Your task to perform on an android device: create a new album in the google photos Image 0: 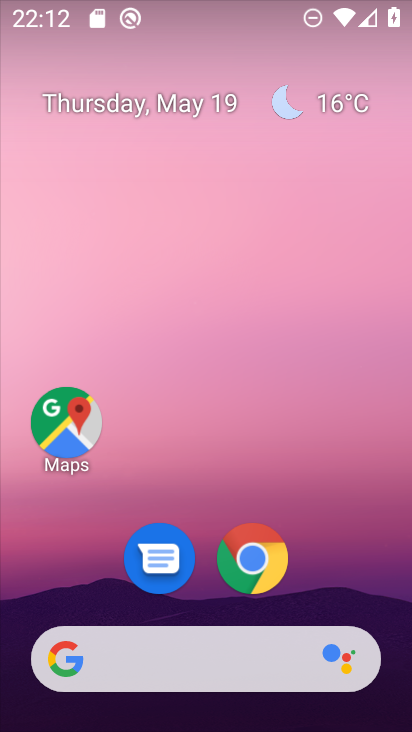
Step 0: drag from (204, 721) to (219, 140)
Your task to perform on an android device: create a new album in the google photos Image 1: 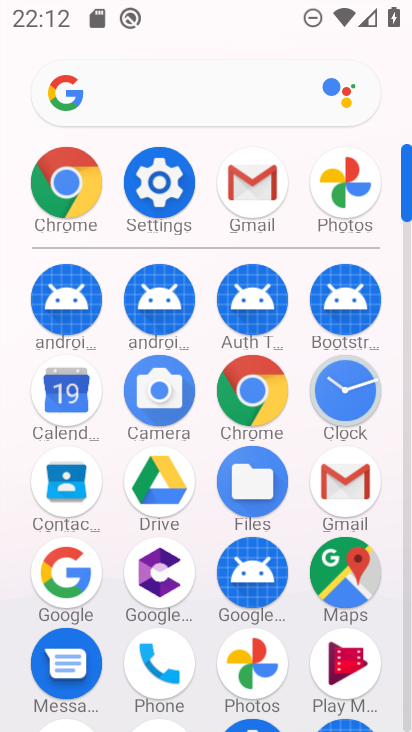
Step 1: click (356, 186)
Your task to perform on an android device: create a new album in the google photos Image 2: 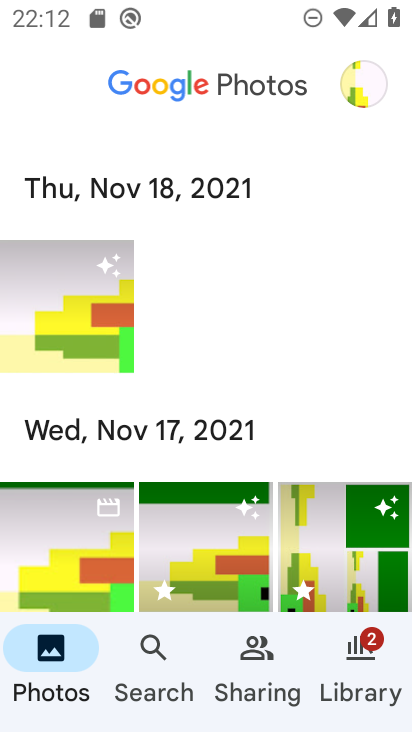
Step 2: click (352, 665)
Your task to perform on an android device: create a new album in the google photos Image 3: 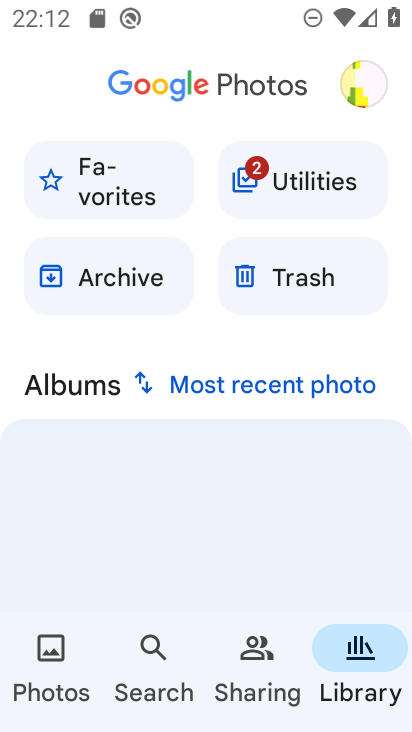
Step 3: drag from (202, 530) to (206, 211)
Your task to perform on an android device: create a new album in the google photos Image 4: 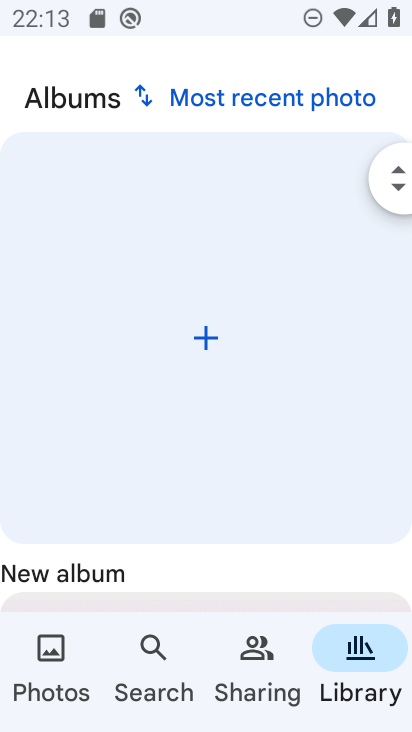
Step 4: click (207, 334)
Your task to perform on an android device: create a new album in the google photos Image 5: 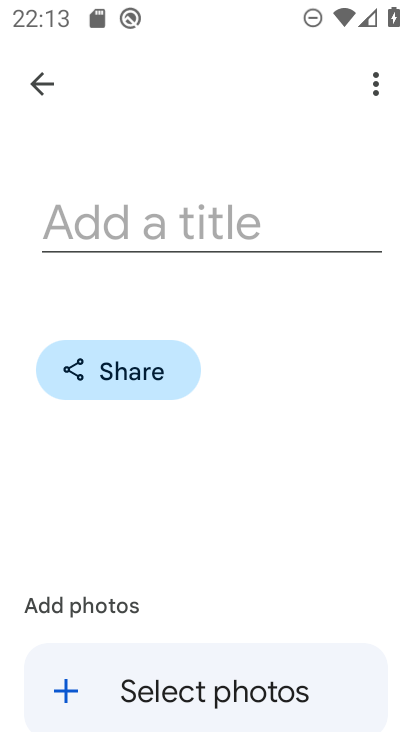
Step 5: click (165, 219)
Your task to perform on an android device: create a new album in the google photos Image 6: 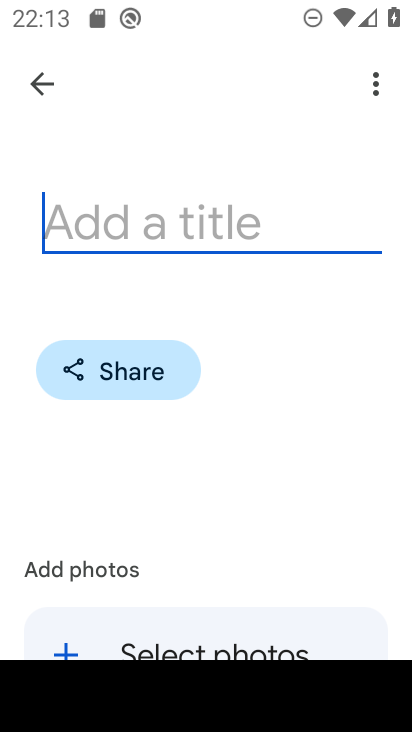
Step 6: type "nsg"
Your task to perform on an android device: create a new album in the google photos Image 7: 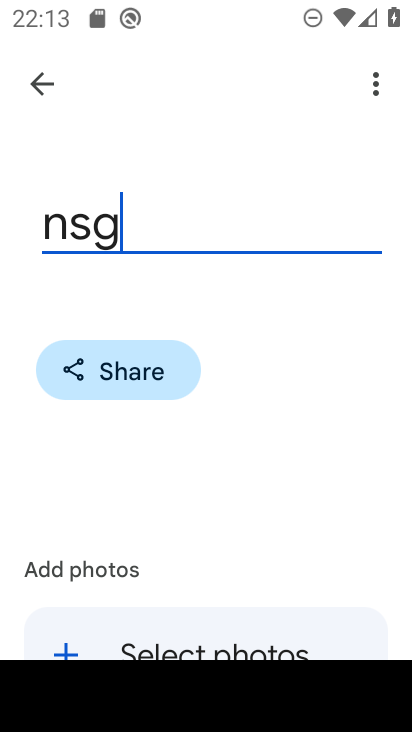
Step 7: click (292, 471)
Your task to perform on an android device: create a new album in the google photos Image 8: 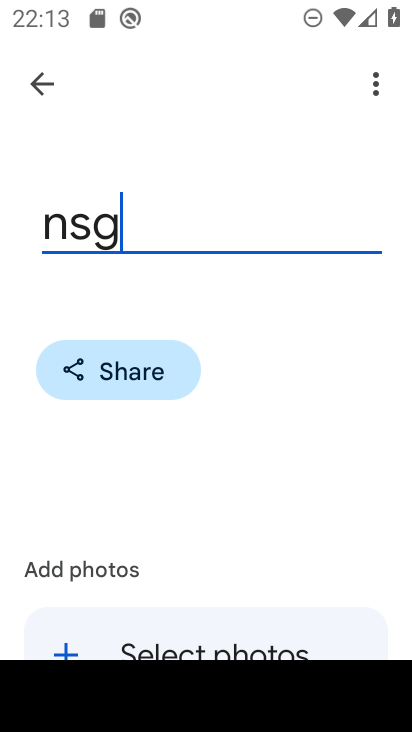
Step 8: click (82, 636)
Your task to perform on an android device: create a new album in the google photos Image 9: 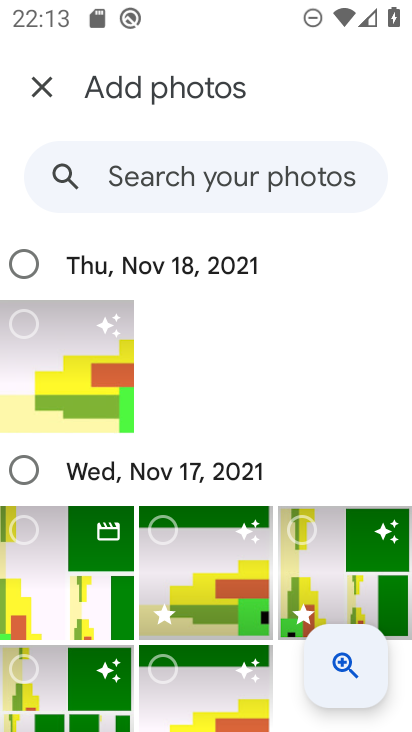
Step 9: click (30, 321)
Your task to perform on an android device: create a new album in the google photos Image 10: 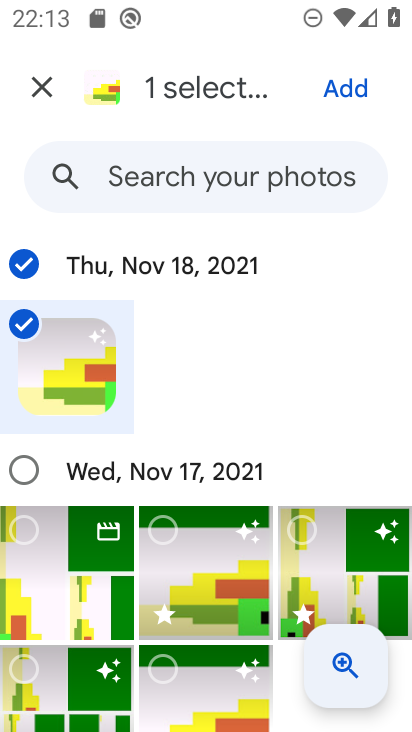
Step 10: click (25, 521)
Your task to perform on an android device: create a new album in the google photos Image 11: 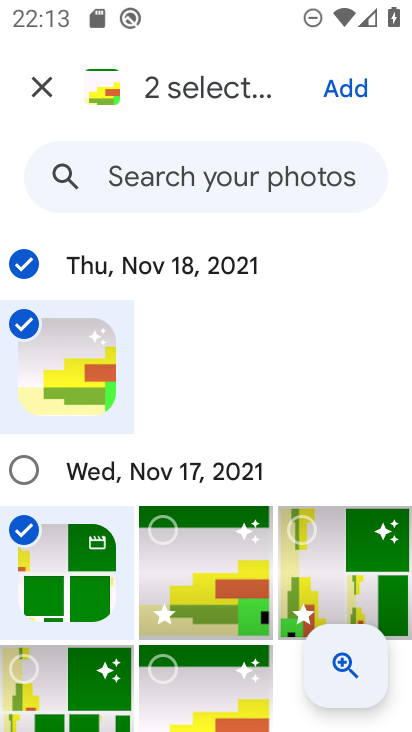
Step 11: click (348, 85)
Your task to perform on an android device: create a new album in the google photos Image 12: 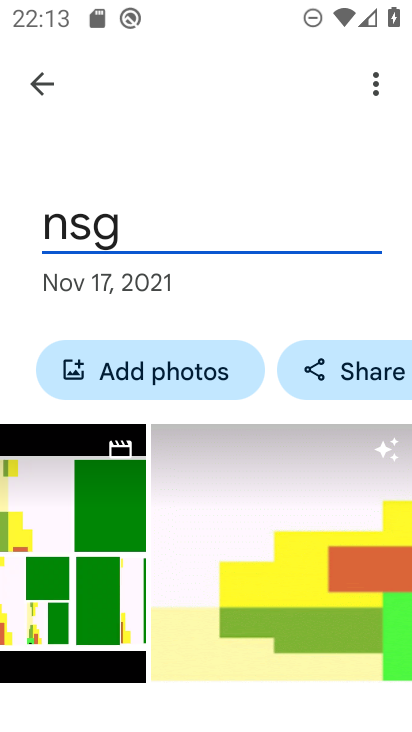
Step 12: click (294, 283)
Your task to perform on an android device: create a new album in the google photos Image 13: 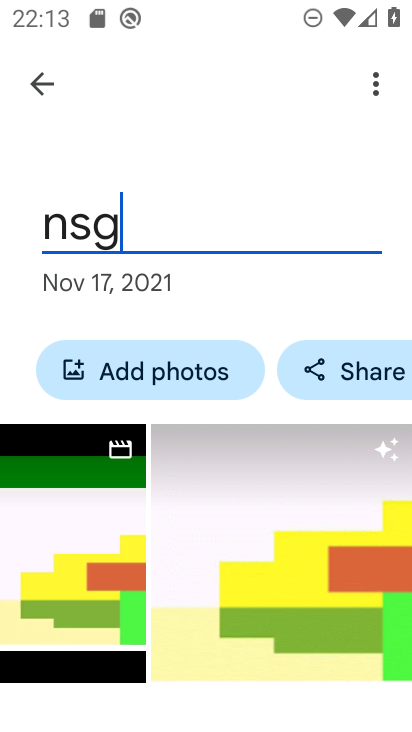
Step 13: task complete